Your task to perform on an android device: toggle javascript in the chrome app Image 0: 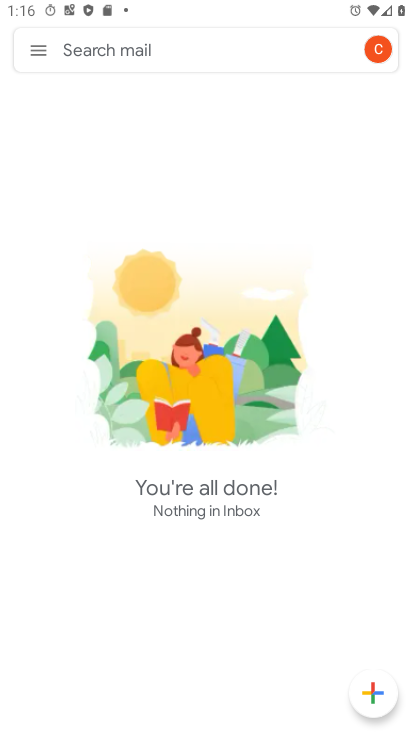
Step 0: press home button
Your task to perform on an android device: toggle javascript in the chrome app Image 1: 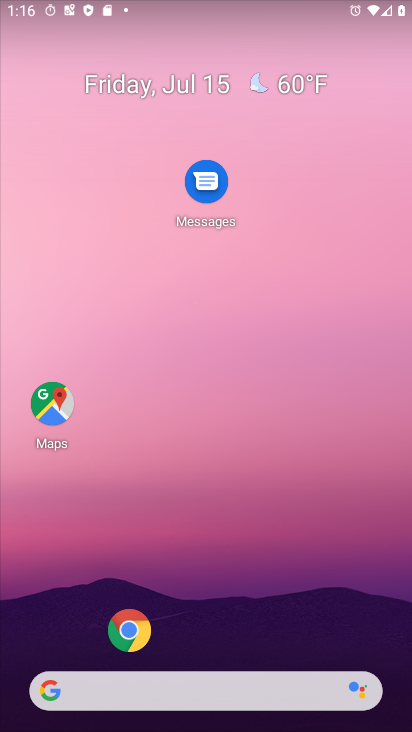
Step 1: click (134, 634)
Your task to perform on an android device: toggle javascript in the chrome app Image 2: 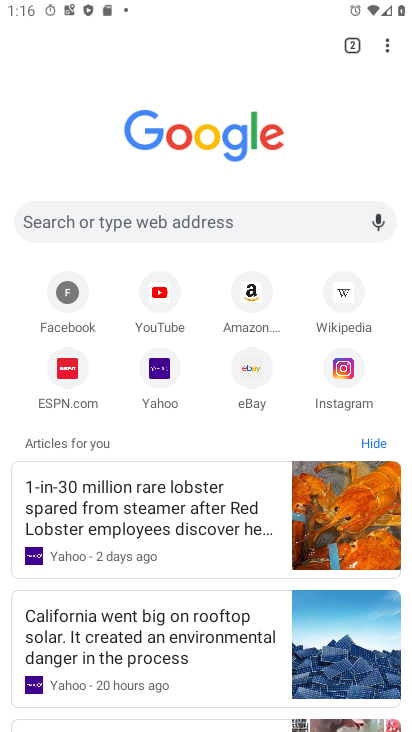
Step 2: click (387, 45)
Your task to perform on an android device: toggle javascript in the chrome app Image 3: 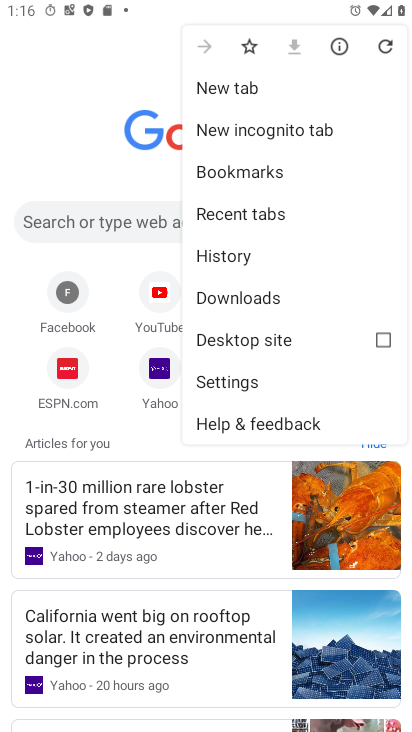
Step 3: click (238, 378)
Your task to perform on an android device: toggle javascript in the chrome app Image 4: 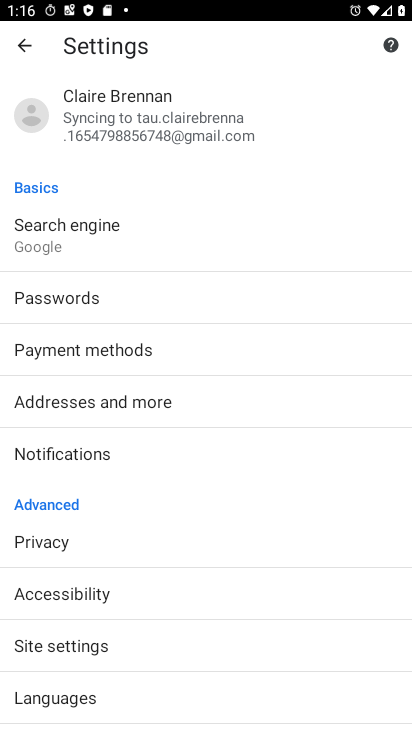
Step 4: click (84, 632)
Your task to perform on an android device: toggle javascript in the chrome app Image 5: 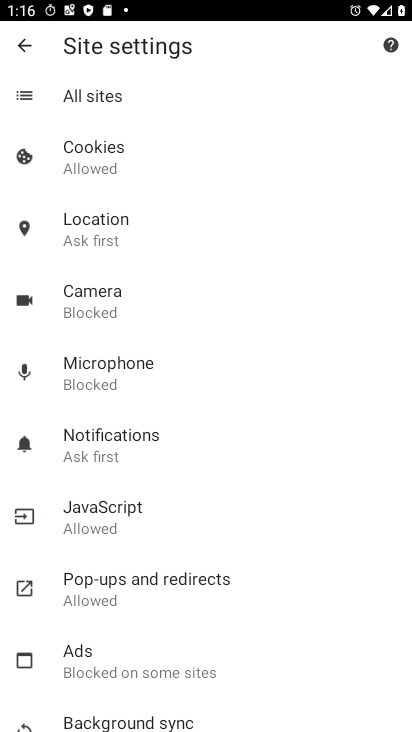
Step 5: click (107, 512)
Your task to perform on an android device: toggle javascript in the chrome app Image 6: 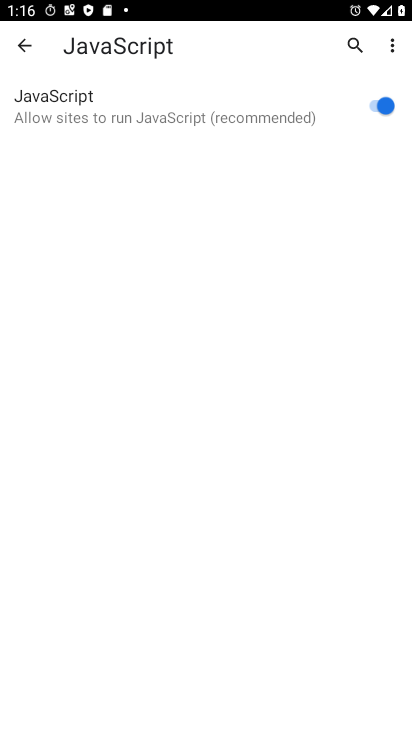
Step 6: task complete